Your task to perform on an android device: Show me the alarms in the clock app Image 0: 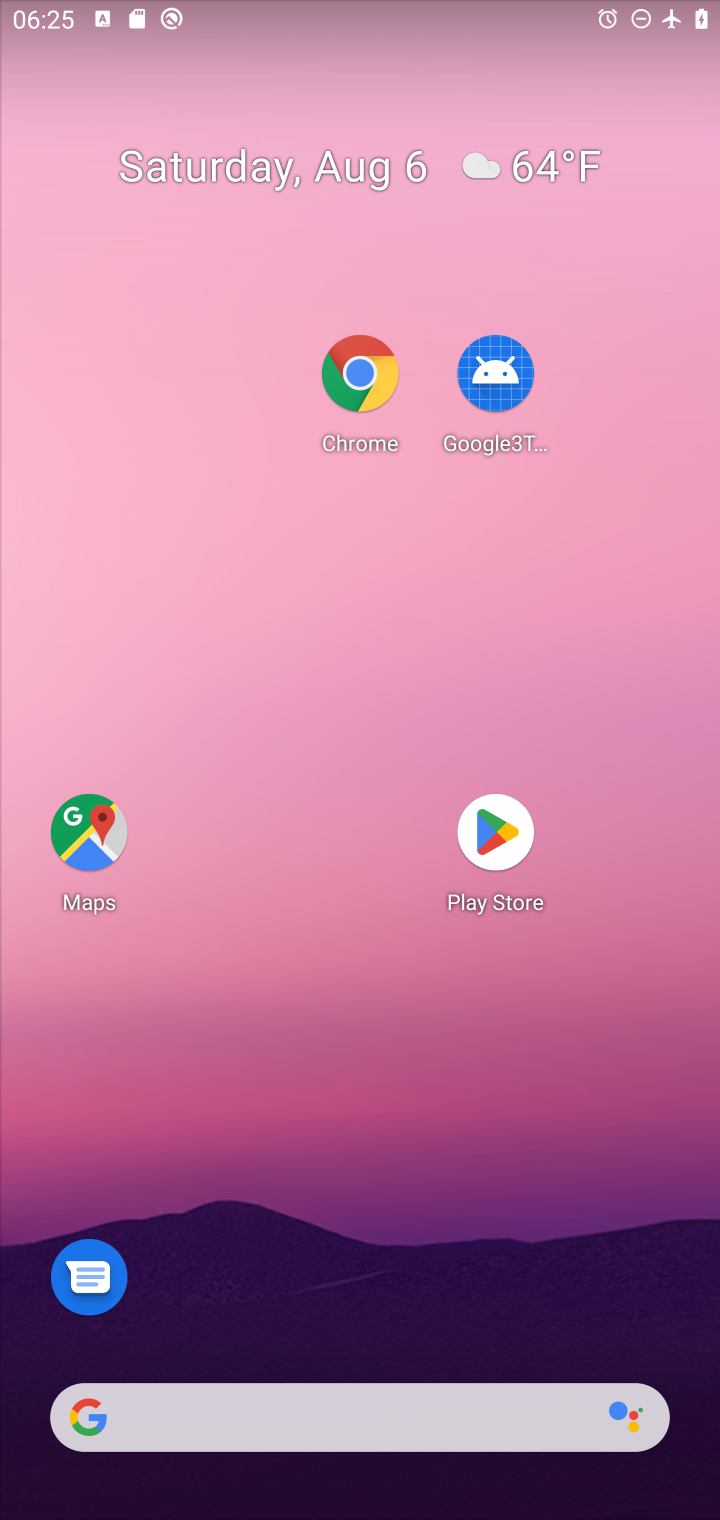
Step 0: drag from (396, 1457) to (201, 608)
Your task to perform on an android device: Show me the alarms in the clock app Image 1: 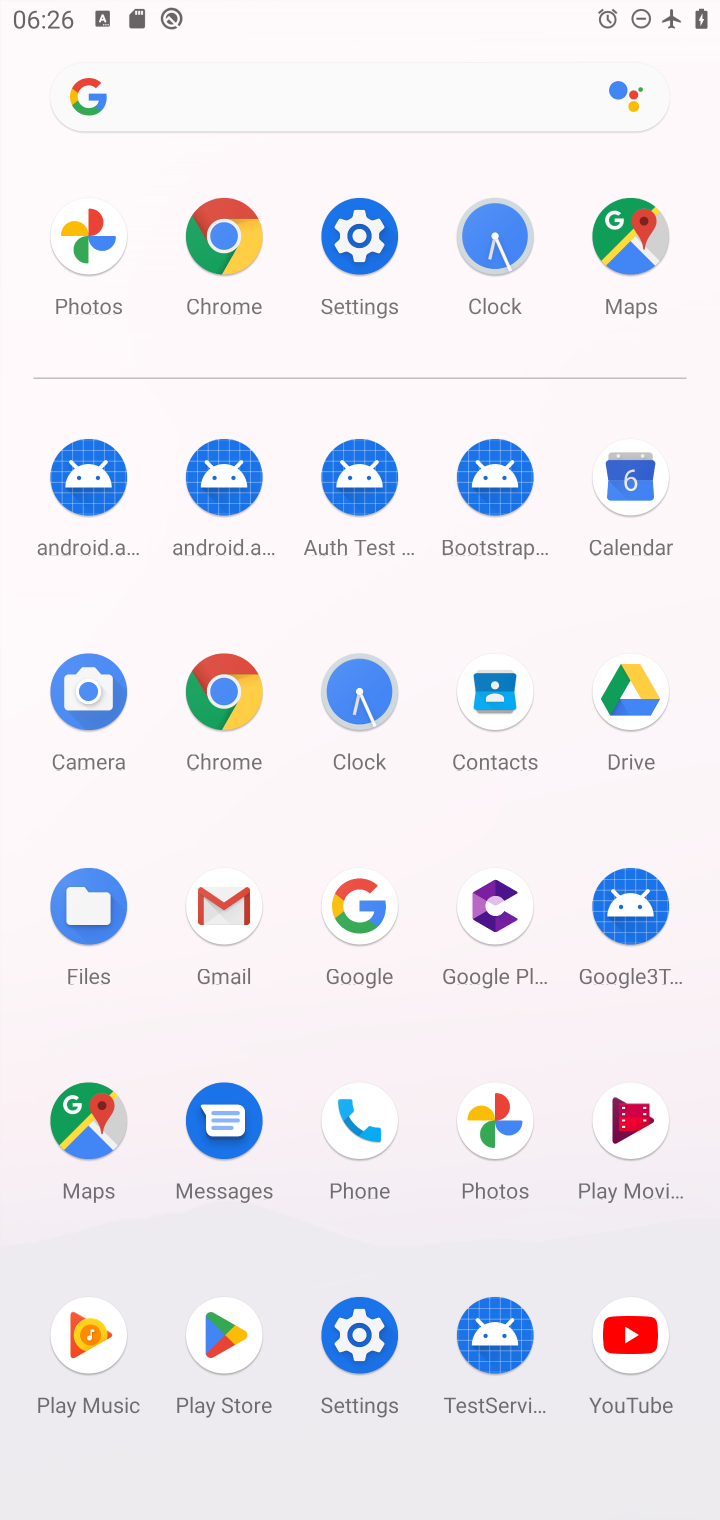
Step 1: click (365, 704)
Your task to perform on an android device: Show me the alarms in the clock app Image 2: 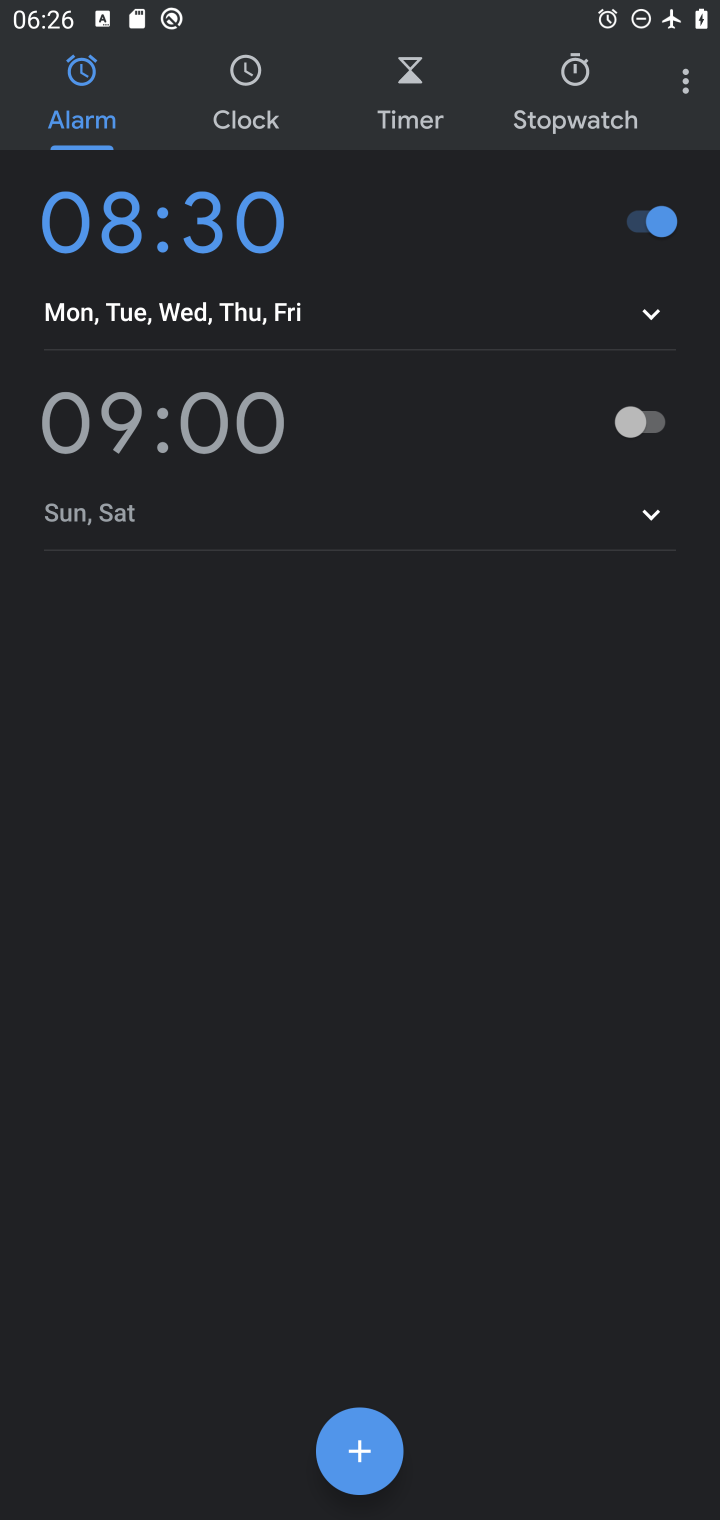
Step 2: task complete